Your task to perform on an android device: Do I have any events tomorrow? Image 0: 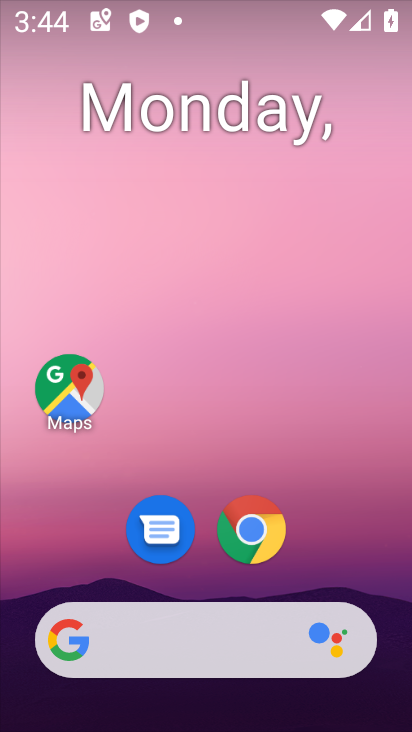
Step 0: drag from (189, 712) to (181, 190)
Your task to perform on an android device: Do I have any events tomorrow? Image 1: 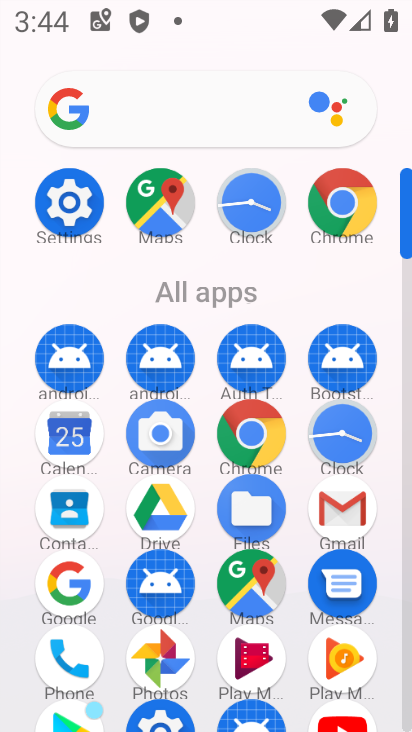
Step 1: click (67, 433)
Your task to perform on an android device: Do I have any events tomorrow? Image 2: 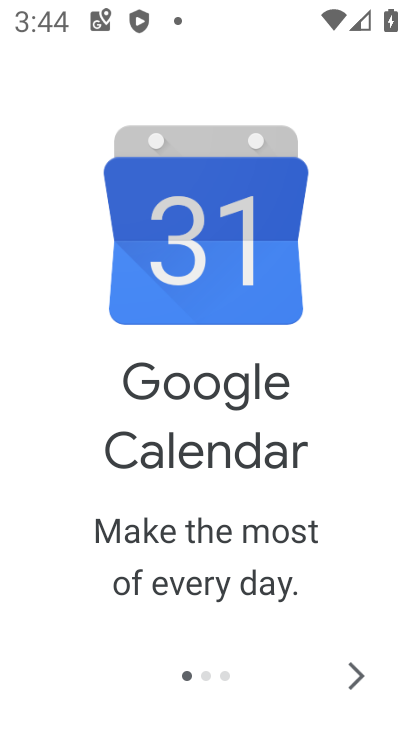
Step 2: click (350, 668)
Your task to perform on an android device: Do I have any events tomorrow? Image 3: 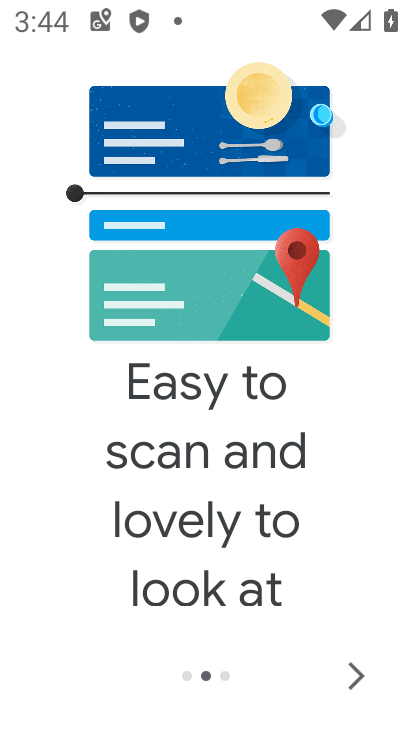
Step 3: click (356, 664)
Your task to perform on an android device: Do I have any events tomorrow? Image 4: 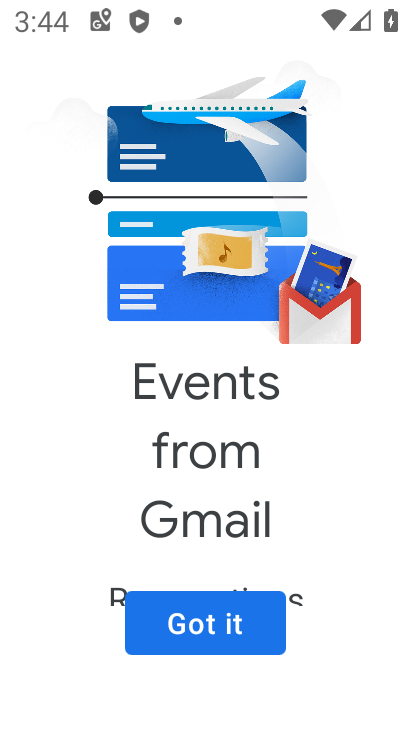
Step 4: click (226, 628)
Your task to perform on an android device: Do I have any events tomorrow? Image 5: 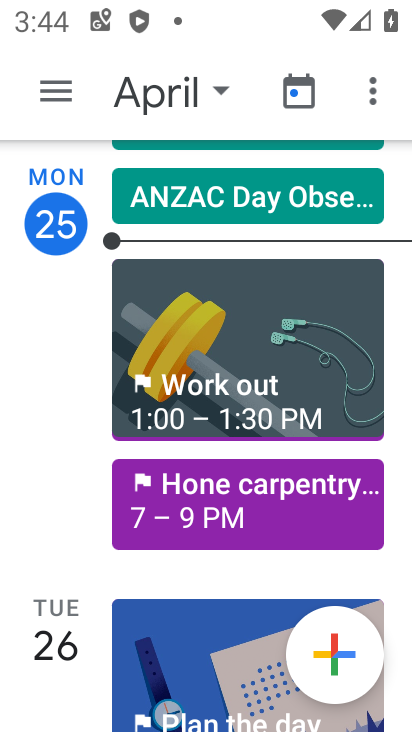
Step 5: click (49, 96)
Your task to perform on an android device: Do I have any events tomorrow? Image 6: 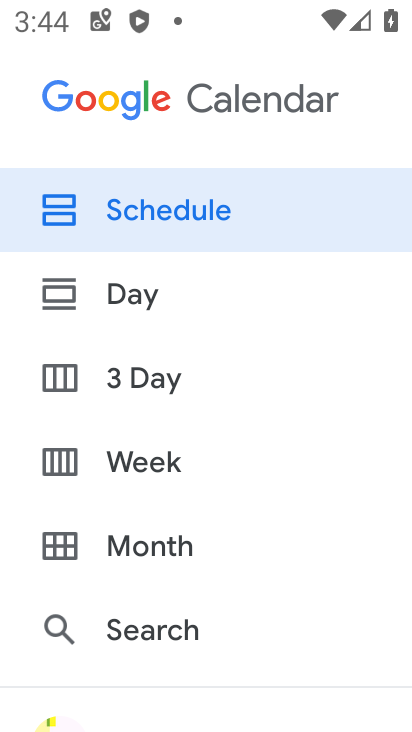
Step 6: drag from (168, 665) to (185, 296)
Your task to perform on an android device: Do I have any events tomorrow? Image 7: 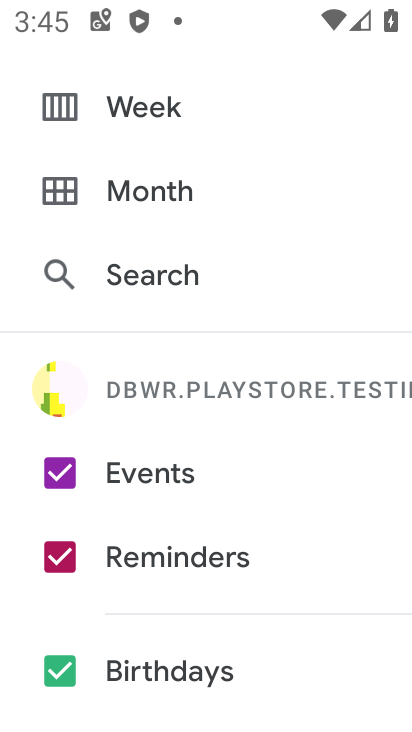
Step 7: drag from (205, 649) to (206, 404)
Your task to perform on an android device: Do I have any events tomorrow? Image 8: 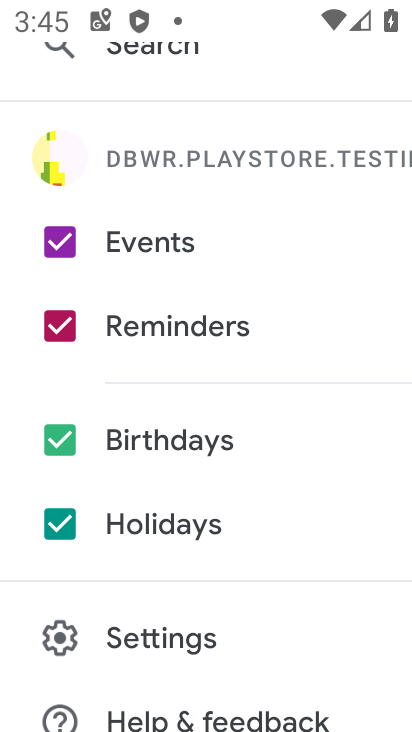
Step 8: click (56, 520)
Your task to perform on an android device: Do I have any events tomorrow? Image 9: 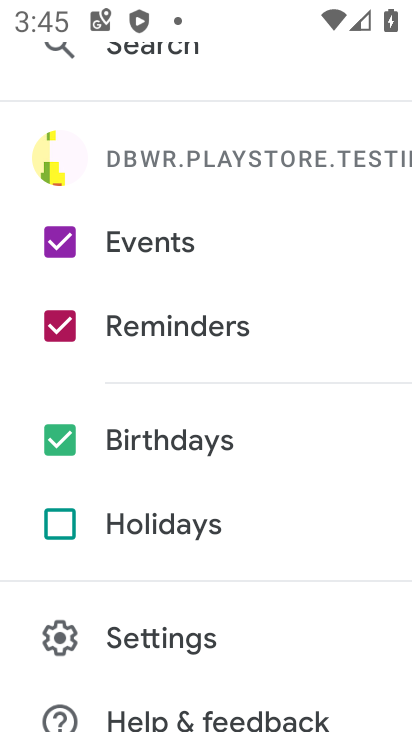
Step 9: click (61, 440)
Your task to perform on an android device: Do I have any events tomorrow? Image 10: 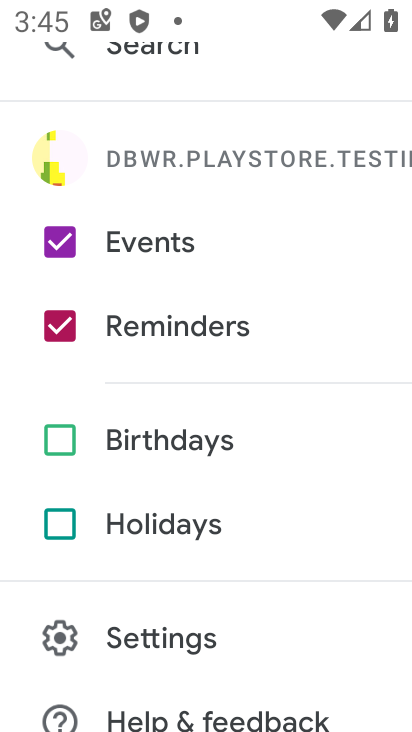
Step 10: click (60, 326)
Your task to perform on an android device: Do I have any events tomorrow? Image 11: 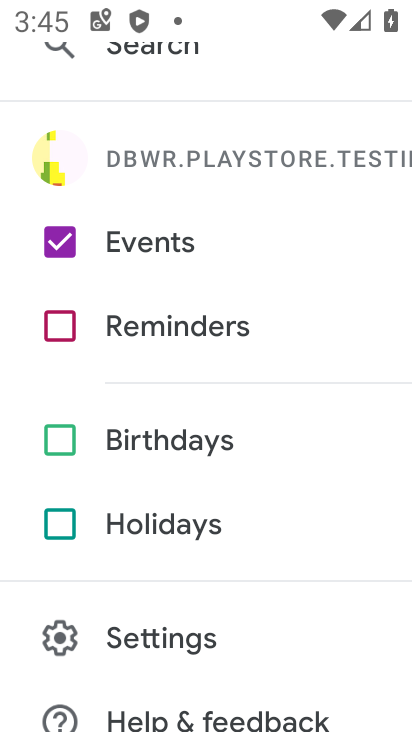
Step 11: drag from (278, 198) to (275, 566)
Your task to perform on an android device: Do I have any events tomorrow? Image 12: 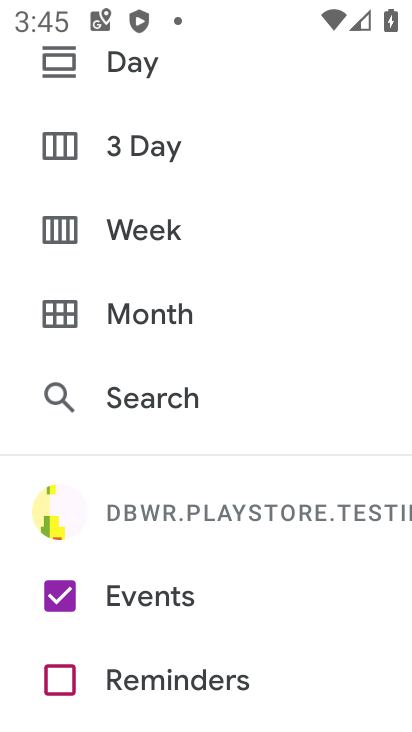
Step 12: drag from (247, 123) to (242, 466)
Your task to perform on an android device: Do I have any events tomorrow? Image 13: 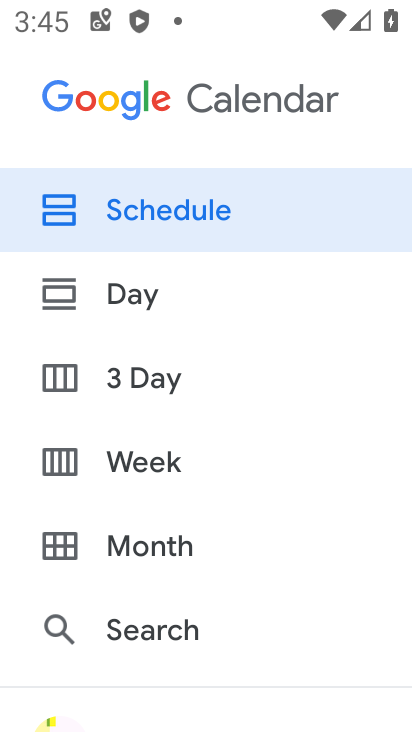
Step 13: click (165, 214)
Your task to perform on an android device: Do I have any events tomorrow? Image 14: 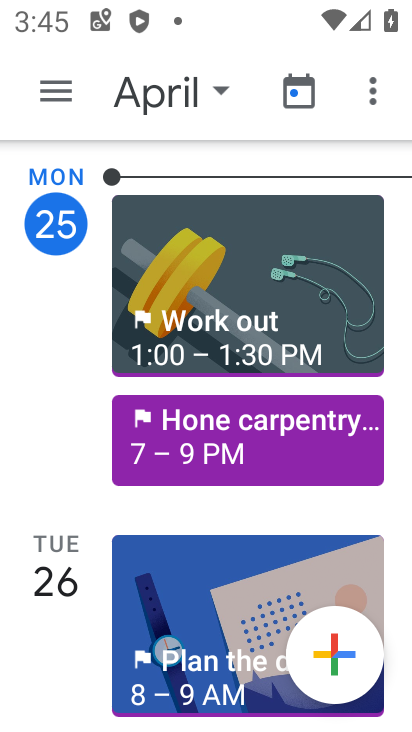
Step 14: click (153, 95)
Your task to perform on an android device: Do I have any events tomorrow? Image 15: 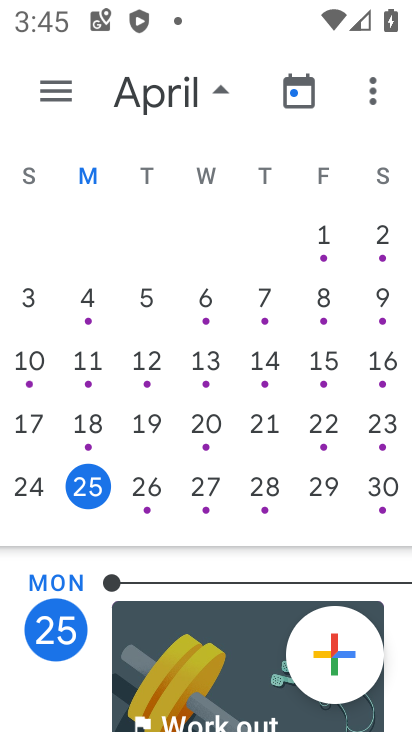
Step 15: click (154, 480)
Your task to perform on an android device: Do I have any events tomorrow? Image 16: 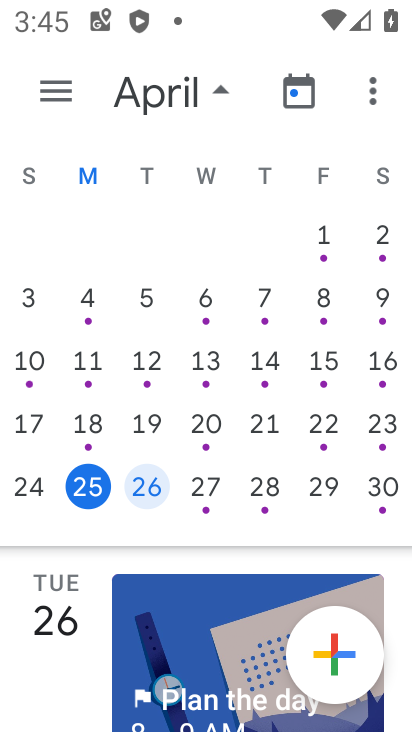
Step 16: task complete